Your task to perform on an android device: visit the assistant section in the google photos Image 0: 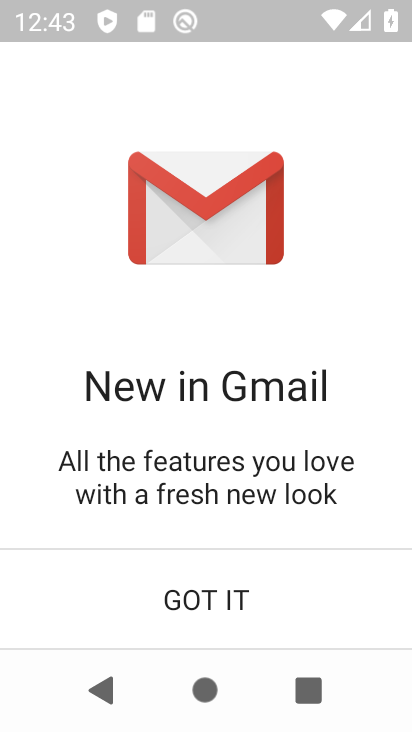
Step 0: click (227, 607)
Your task to perform on an android device: visit the assistant section in the google photos Image 1: 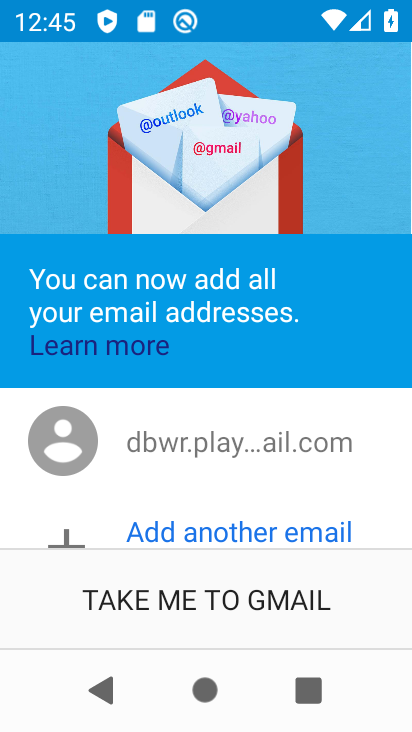
Step 1: press home button
Your task to perform on an android device: visit the assistant section in the google photos Image 2: 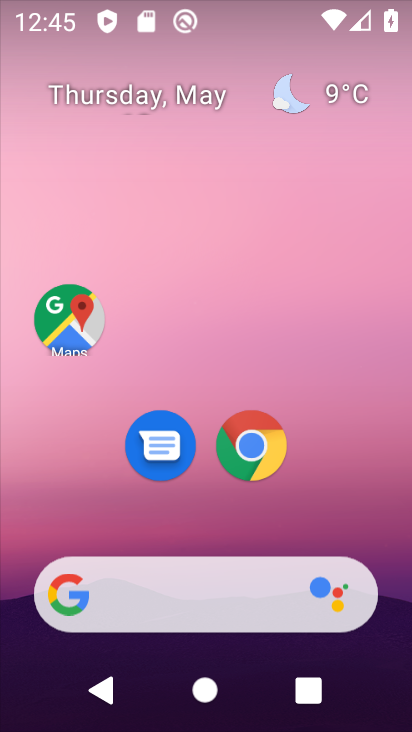
Step 2: drag from (326, 505) to (338, 58)
Your task to perform on an android device: visit the assistant section in the google photos Image 3: 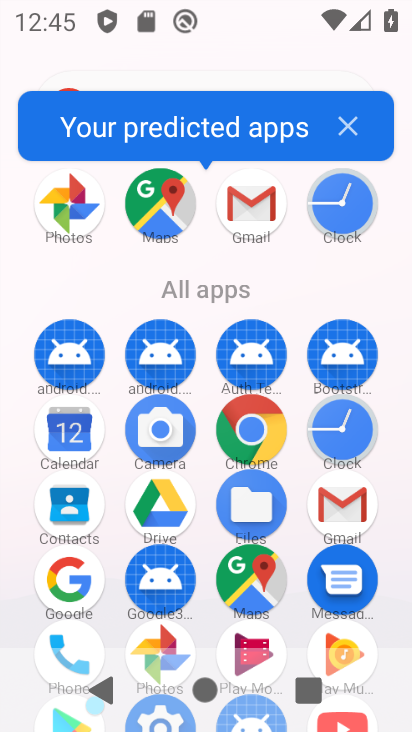
Step 3: click (175, 639)
Your task to perform on an android device: visit the assistant section in the google photos Image 4: 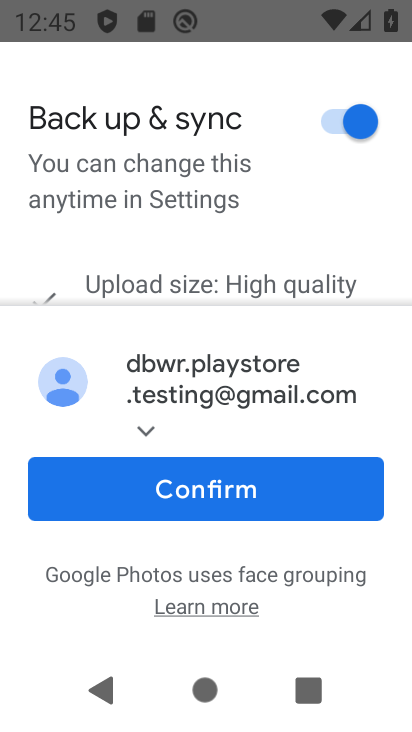
Step 4: click (297, 483)
Your task to perform on an android device: visit the assistant section in the google photos Image 5: 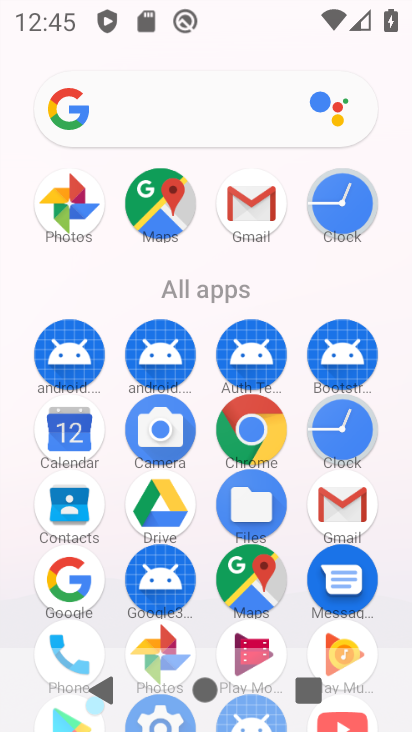
Step 5: click (168, 637)
Your task to perform on an android device: visit the assistant section in the google photos Image 6: 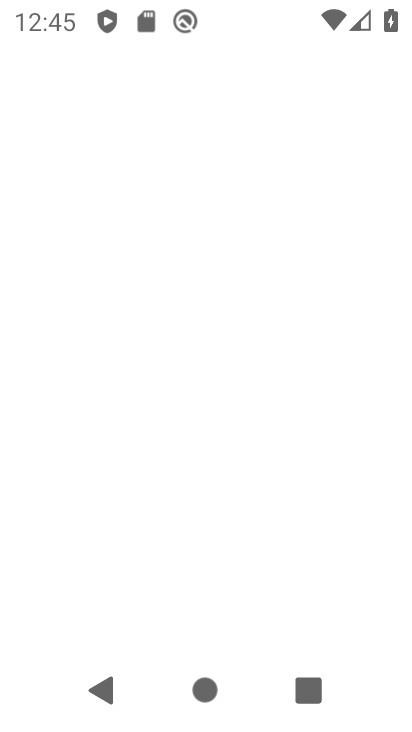
Step 6: drag from (204, 618) to (200, 360)
Your task to perform on an android device: visit the assistant section in the google photos Image 7: 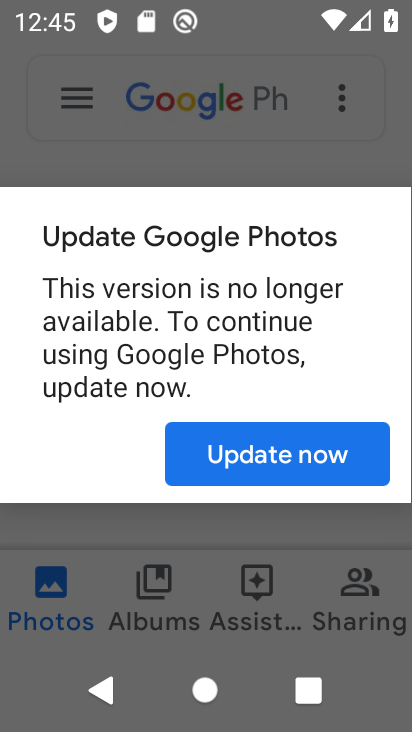
Step 7: click (281, 446)
Your task to perform on an android device: visit the assistant section in the google photos Image 8: 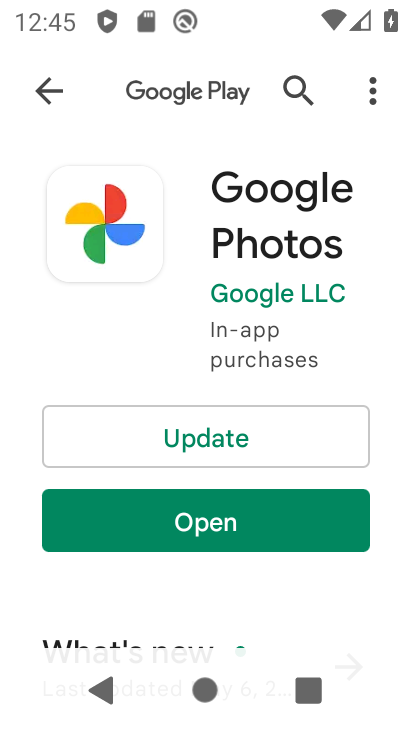
Step 8: click (288, 443)
Your task to perform on an android device: visit the assistant section in the google photos Image 9: 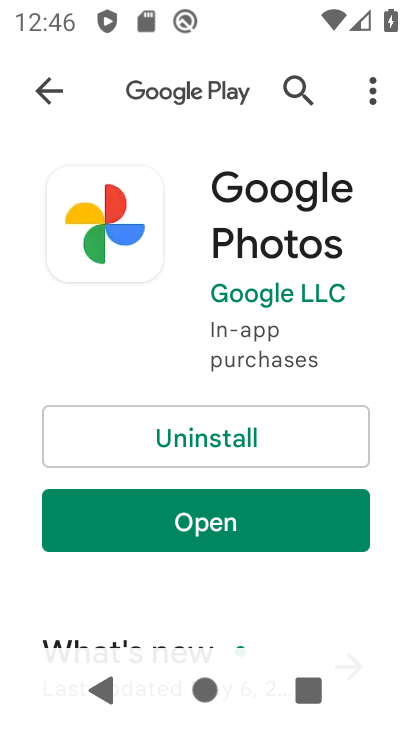
Step 9: click (249, 514)
Your task to perform on an android device: visit the assistant section in the google photos Image 10: 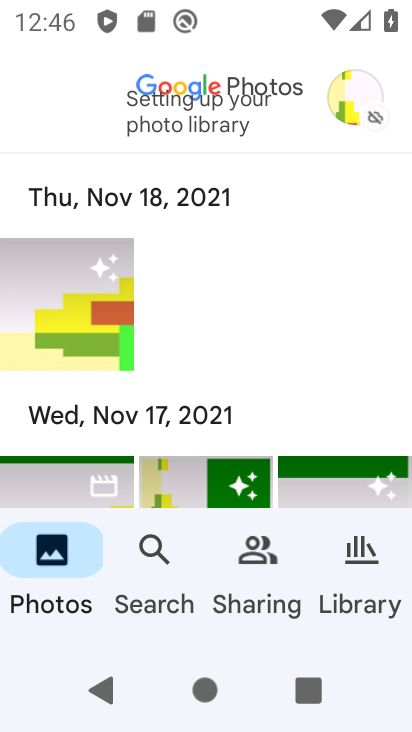
Step 10: click (373, 568)
Your task to perform on an android device: visit the assistant section in the google photos Image 11: 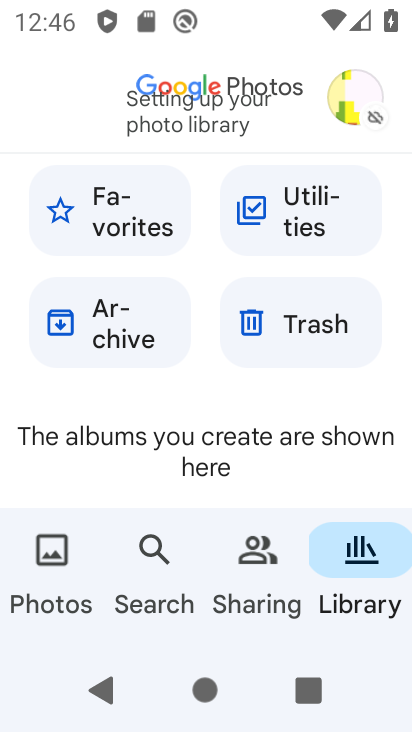
Step 11: drag from (248, 473) to (249, 199)
Your task to perform on an android device: visit the assistant section in the google photos Image 12: 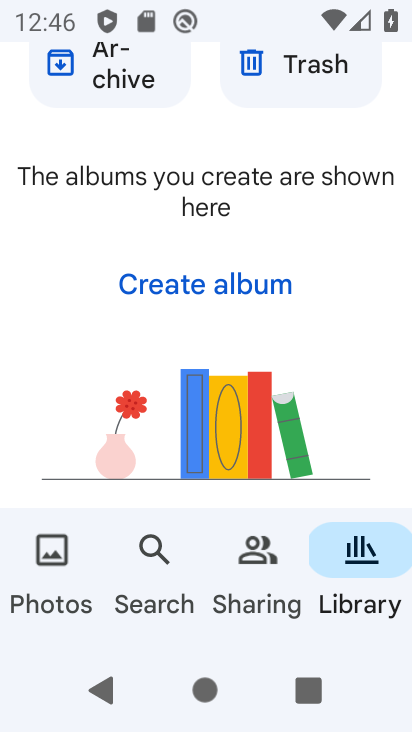
Step 12: drag from (281, 411) to (305, 136)
Your task to perform on an android device: visit the assistant section in the google photos Image 13: 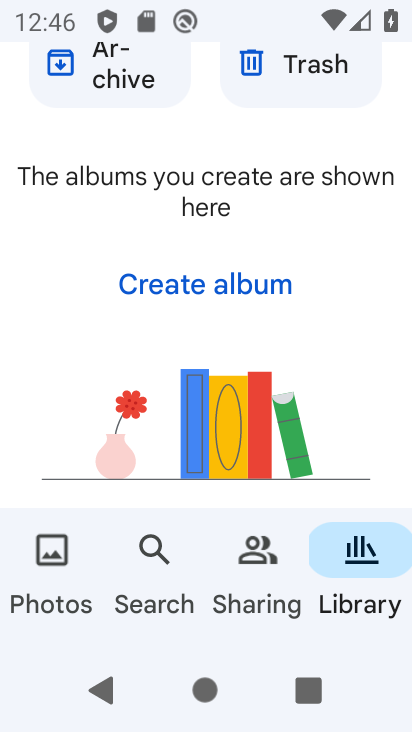
Step 13: drag from (312, 188) to (270, 494)
Your task to perform on an android device: visit the assistant section in the google photos Image 14: 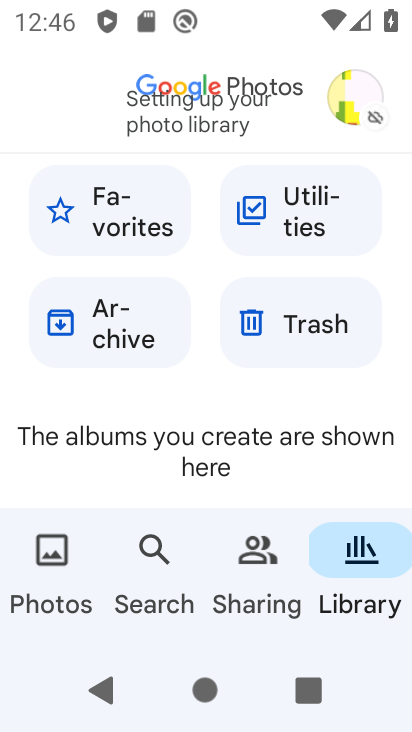
Step 14: click (250, 559)
Your task to perform on an android device: visit the assistant section in the google photos Image 15: 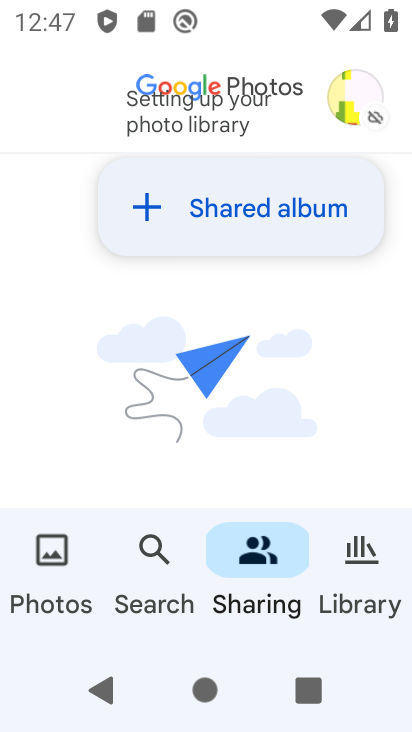
Step 15: click (168, 549)
Your task to perform on an android device: visit the assistant section in the google photos Image 16: 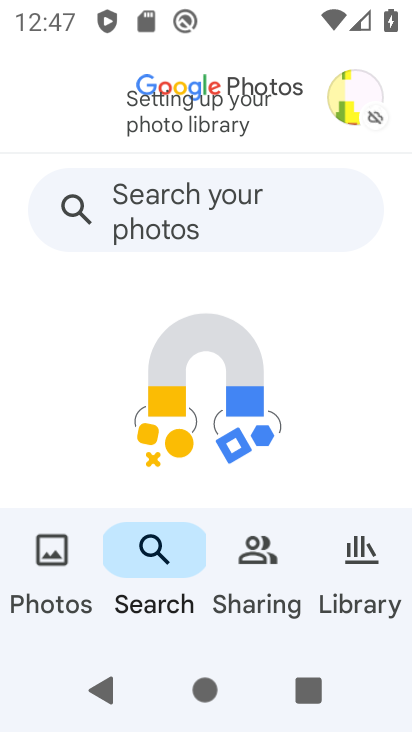
Step 16: task complete